Your task to perform on an android device: Search for electric lawnmowers on Home Depot Image 0: 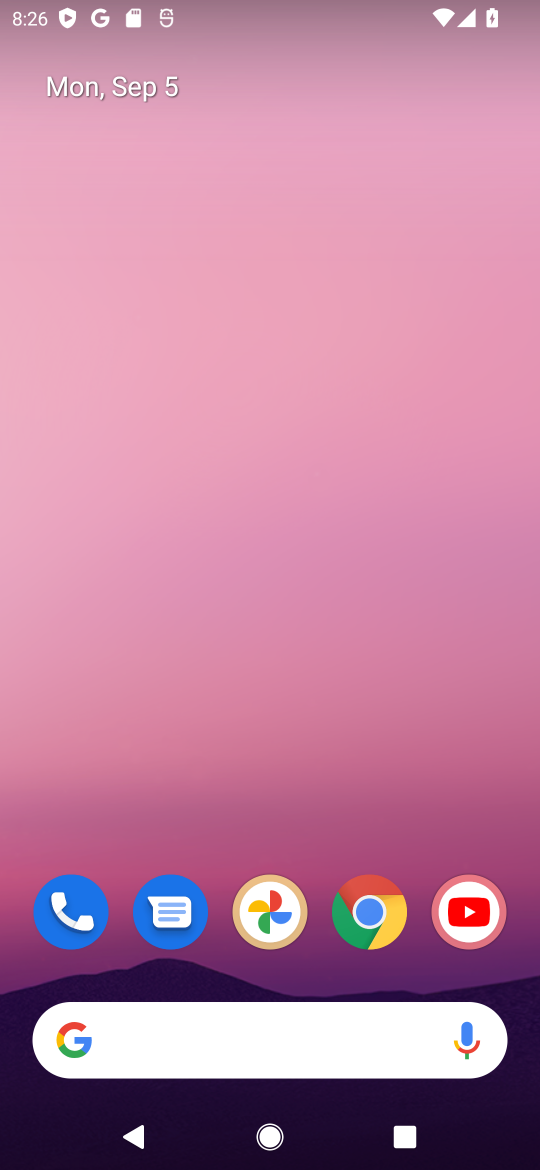
Step 0: click (372, 909)
Your task to perform on an android device: Search for electric lawnmowers on Home Depot Image 1: 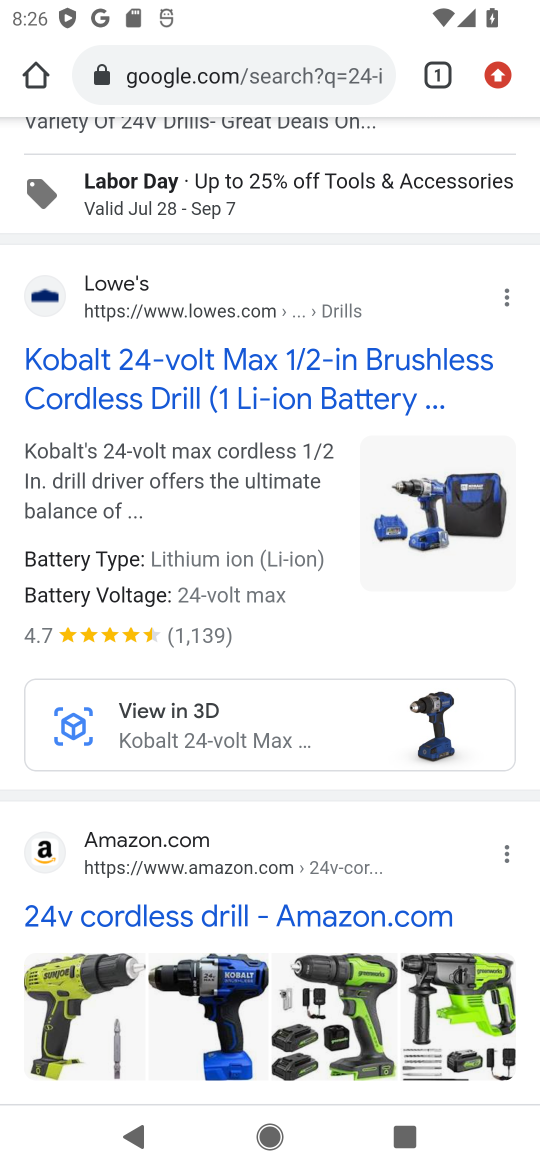
Step 1: click (204, 85)
Your task to perform on an android device: Search for electric lawnmowers on Home Depot Image 2: 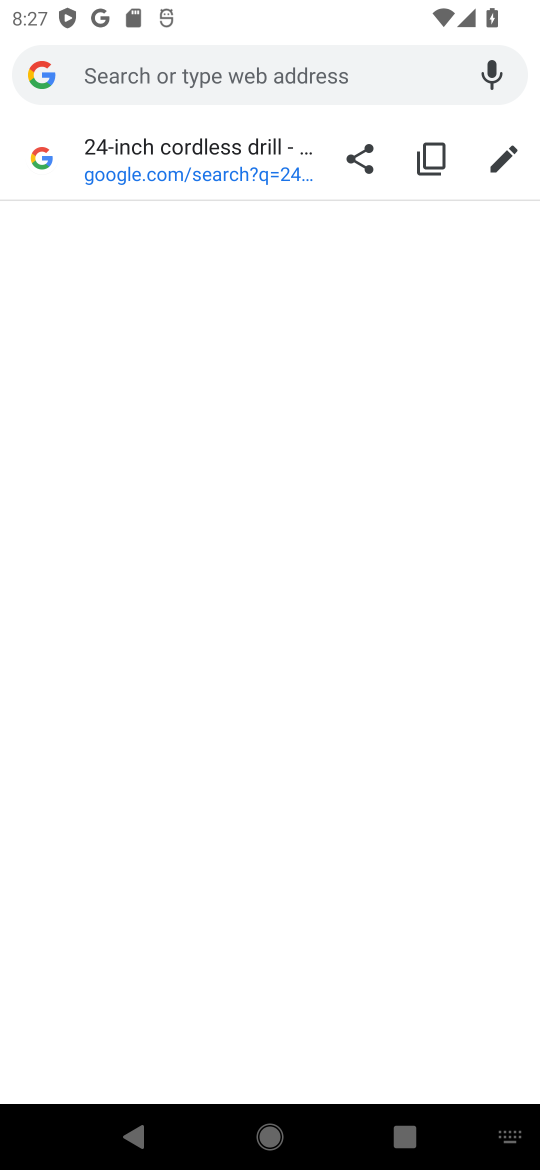
Step 2: type "home depot"
Your task to perform on an android device: Search for electric lawnmowers on Home Depot Image 3: 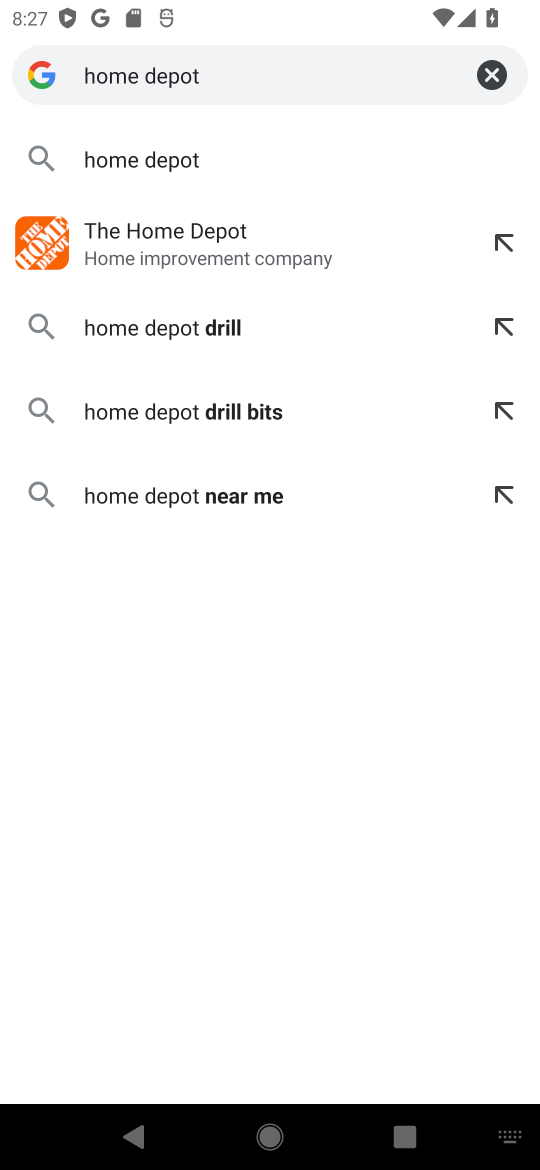
Step 3: press enter
Your task to perform on an android device: Search for electric lawnmowers on Home Depot Image 4: 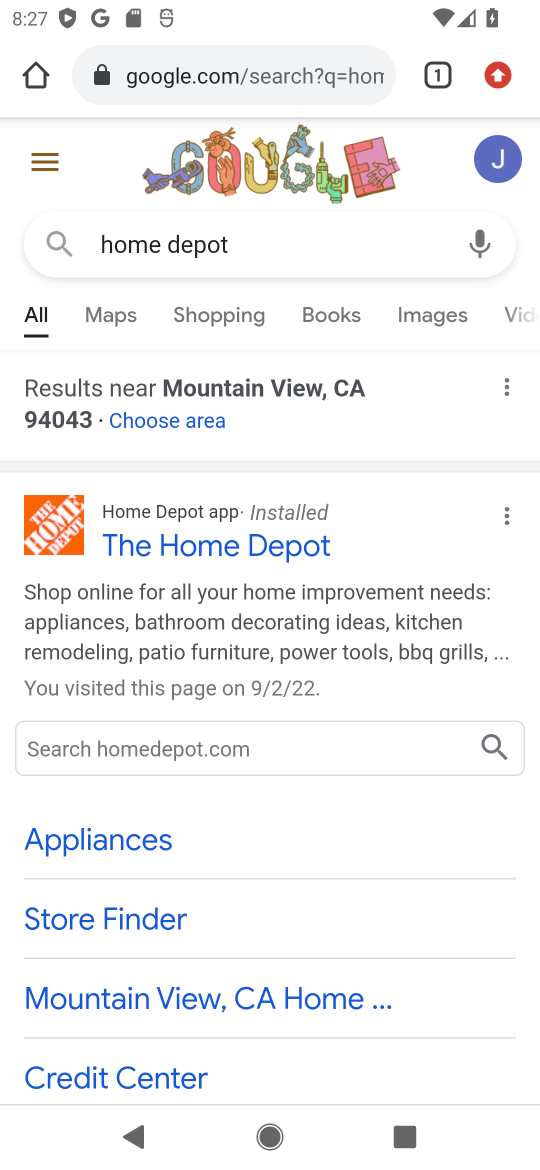
Step 4: click (237, 558)
Your task to perform on an android device: Search for electric lawnmowers on Home Depot Image 5: 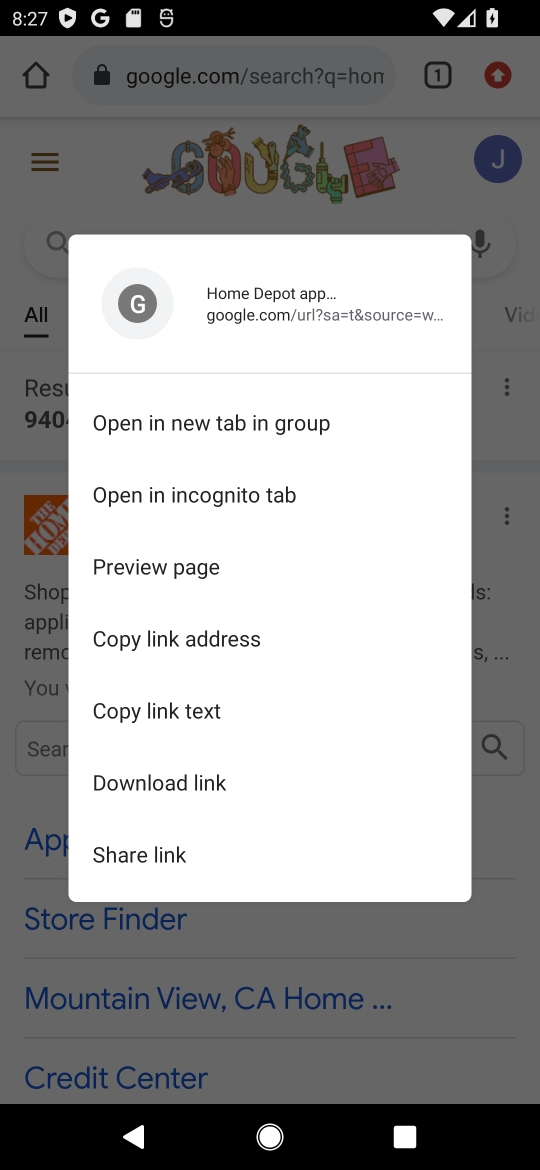
Step 5: click (523, 537)
Your task to perform on an android device: Search for electric lawnmowers on Home Depot Image 6: 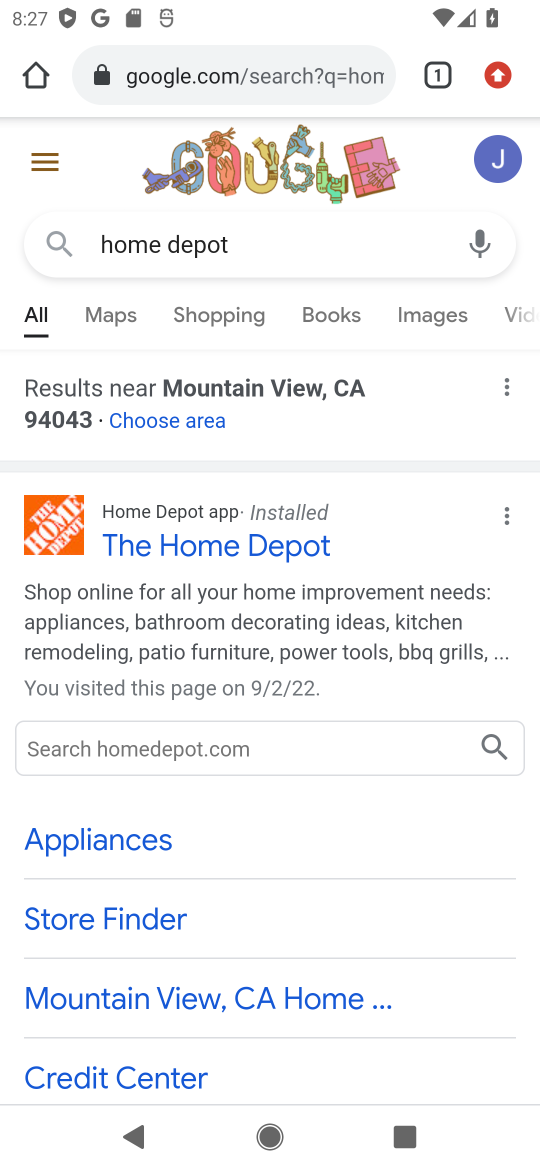
Step 6: click (282, 545)
Your task to perform on an android device: Search for electric lawnmowers on Home Depot Image 7: 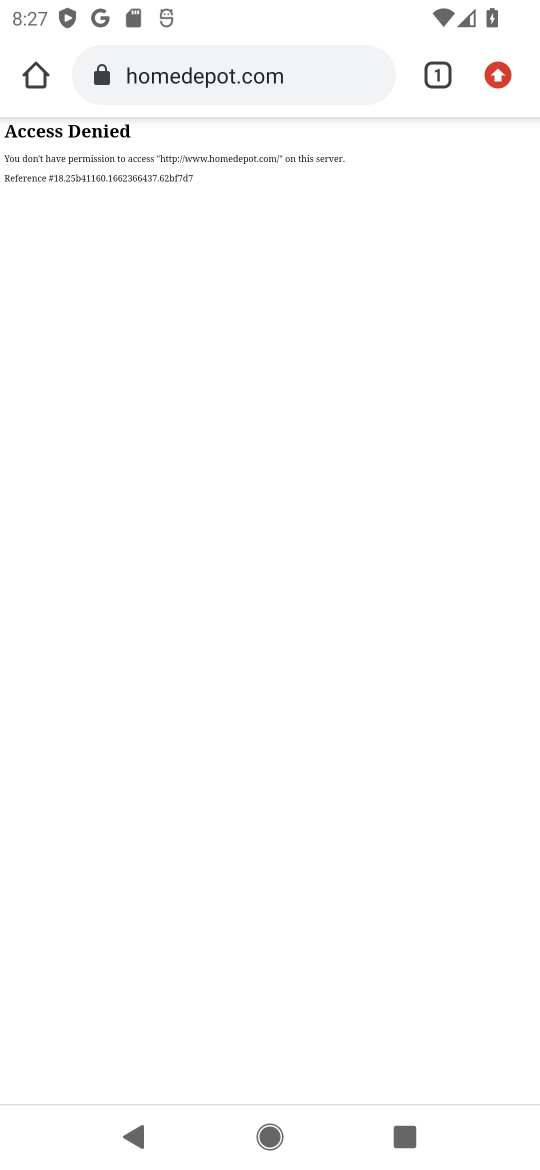
Step 7: task complete